Your task to perform on an android device: turn notification dots off Image 0: 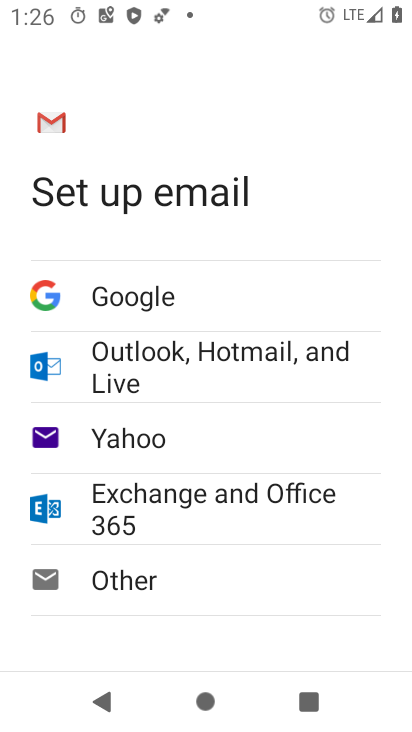
Step 0: press home button
Your task to perform on an android device: turn notification dots off Image 1: 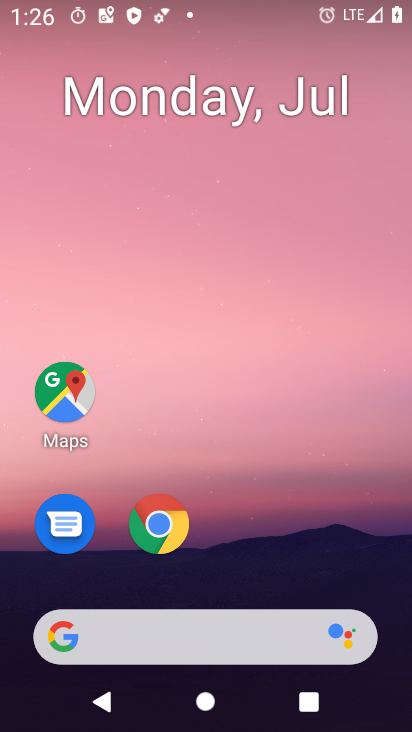
Step 1: drag from (304, 538) to (267, 0)
Your task to perform on an android device: turn notification dots off Image 2: 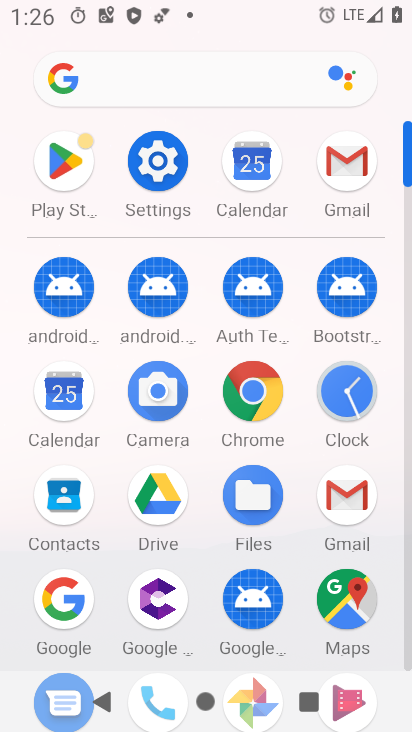
Step 2: click (158, 158)
Your task to perform on an android device: turn notification dots off Image 3: 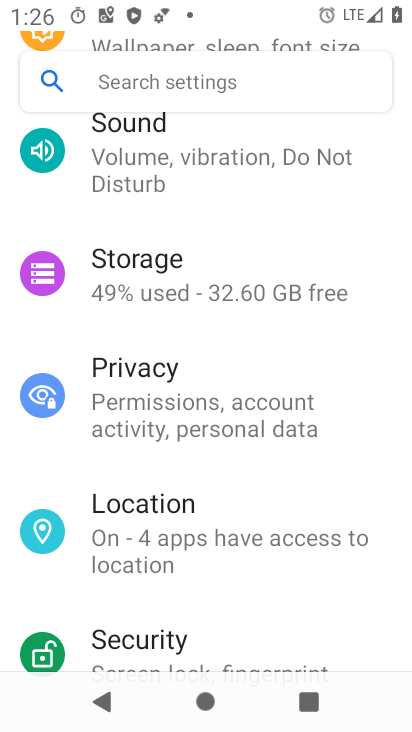
Step 3: drag from (245, 131) to (282, 703)
Your task to perform on an android device: turn notification dots off Image 4: 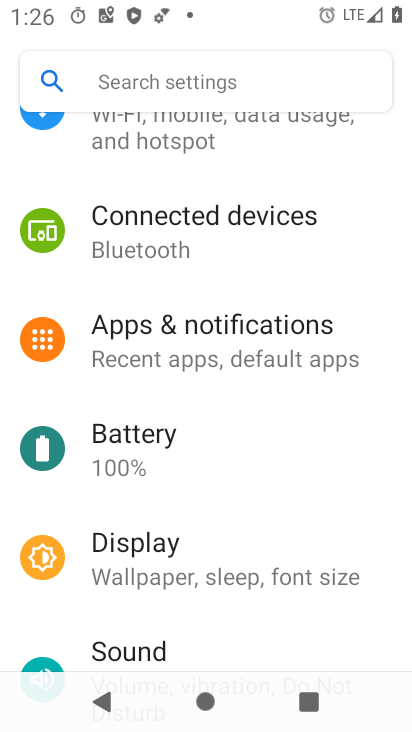
Step 4: click (158, 344)
Your task to perform on an android device: turn notification dots off Image 5: 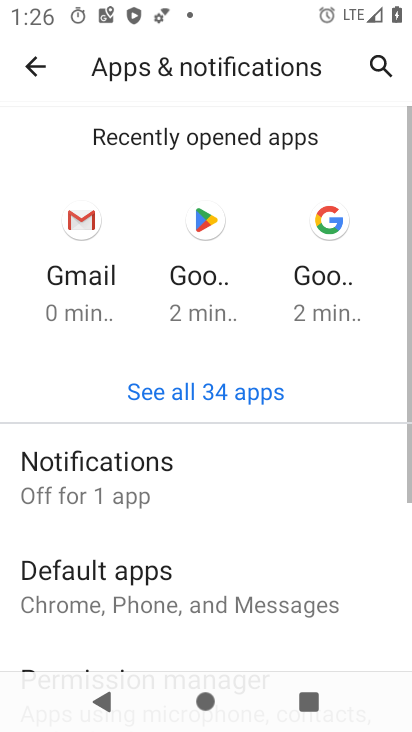
Step 5: drag from (270, 478) to (247, 107)
Your task to perform on an android device: turn notification dots off Image 6: 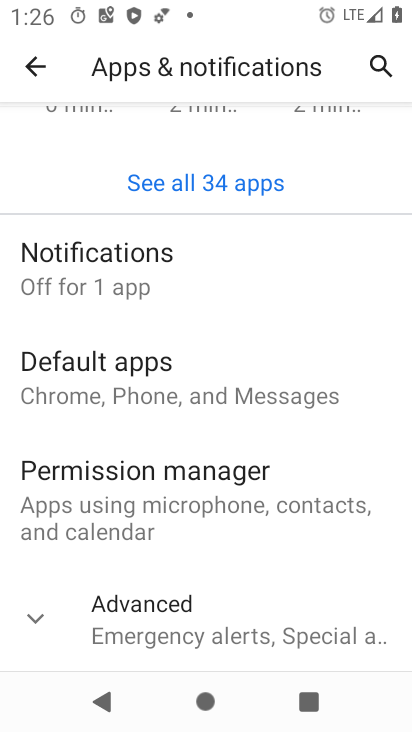
Step 6: click (27, 619)
Your task to perform on an android device: turn notification dots off Image 7: 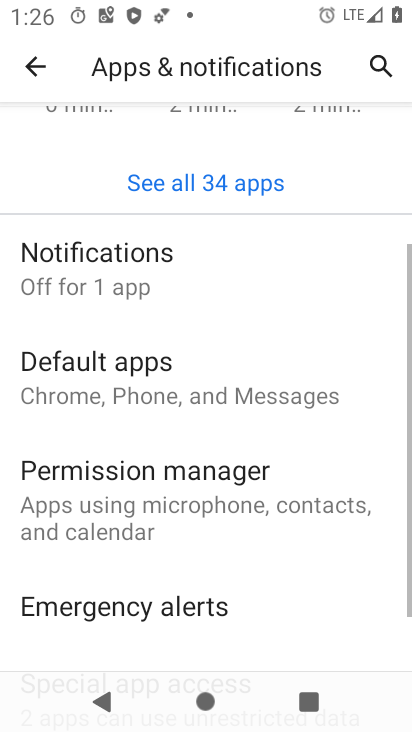
Step 7: drag from (272, 619) to (287, 85)
Your task to perform on an android device: turn notification dots off Image 8: 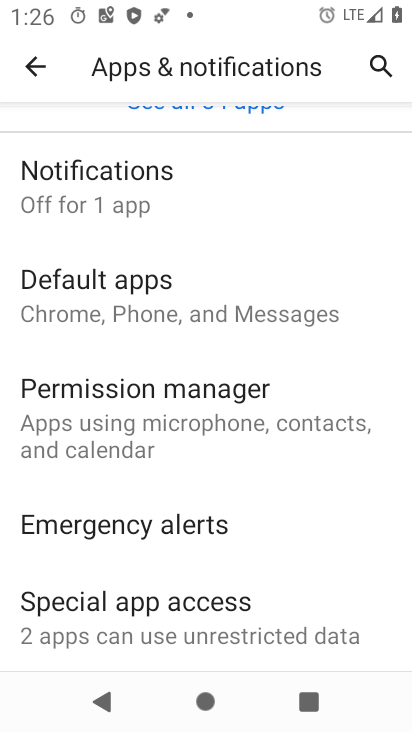
Step 8: drag from (310, 566) to (226, 60)
Your task to perform on an android device: turn notification dots off Image 9: 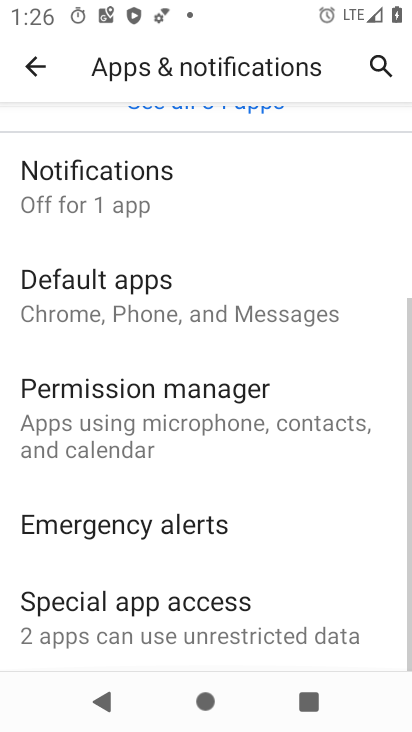
Step 9: click (231, 189)
Your task to perform on an android device: turn notification dots off Image 10: 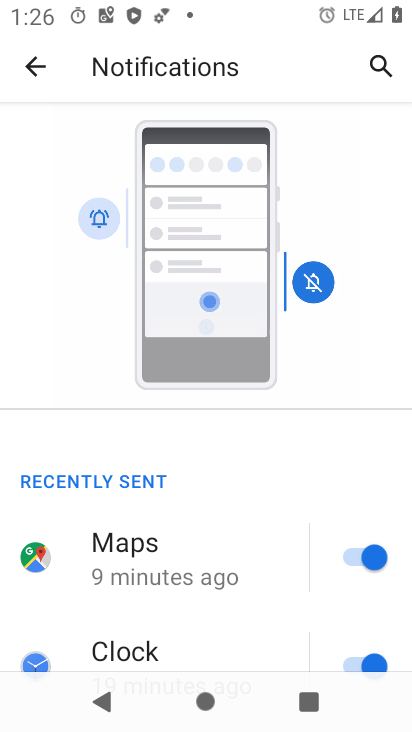
Step 10: drag from (280, 501) to (233, 2)
Your task to perform on an android device: turn notification dots off Image 11: 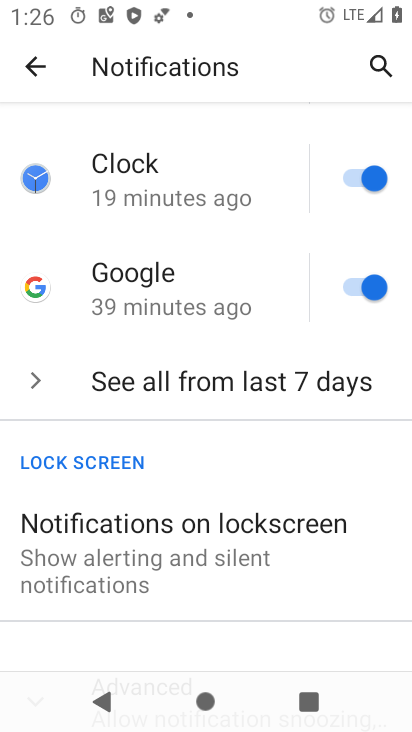
Step 11: drag from (338, 579) to (314, 174)
Your task to perform on an android device: turn notification dots off Image 12: 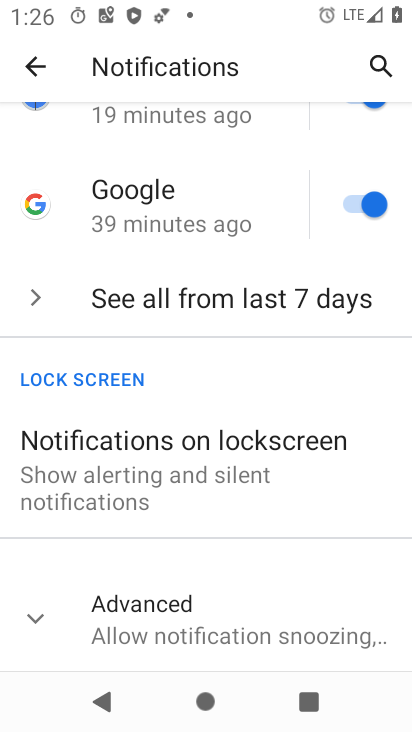
Step 12: click (33, 621)
Your task to perform on an android device: turn notification dots off Image 13: 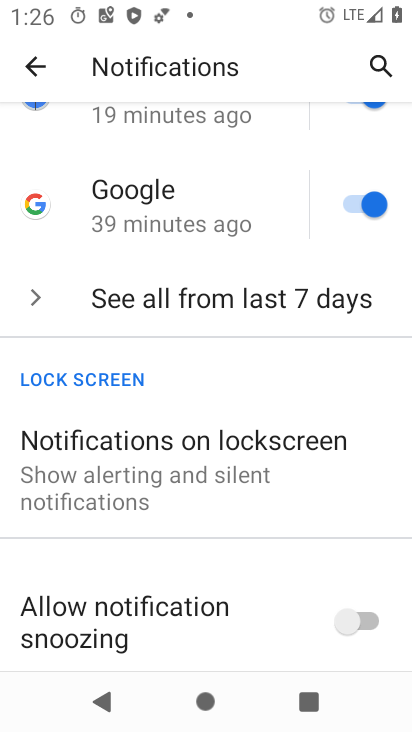
Step 13: task complete